Your task to perform on an android device: change alarm snooze length Image 0: 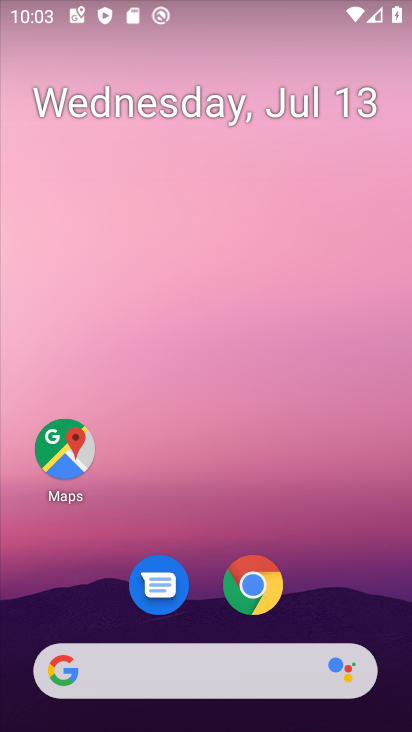
Step 0: drag from (321, 507) to (310, 0)
Your task to perform on an android device: change alarm snooze length Image 1: 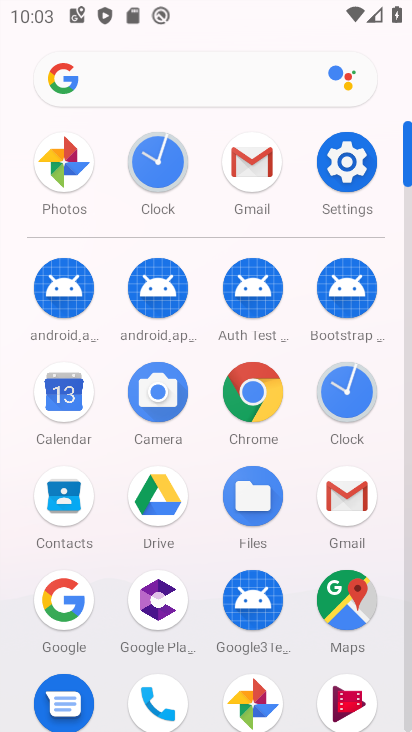
Step 1: click (168, 164)
Your task to perform on an android device: change alarm snooze length Image 2: 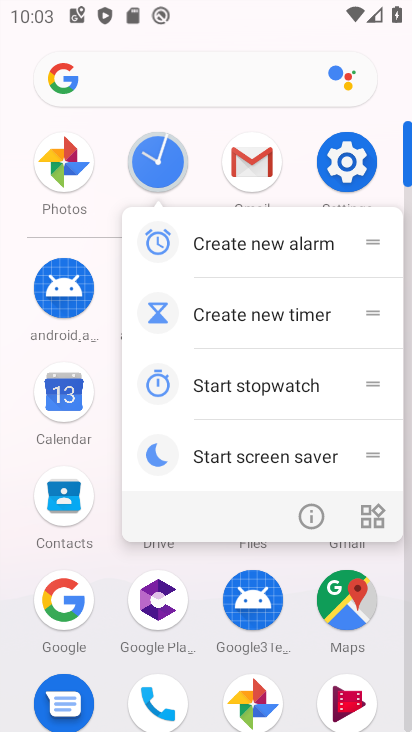
Step 2: click (172, 165)
Your task to perform on an android device: change alarm snooze length Image 3: 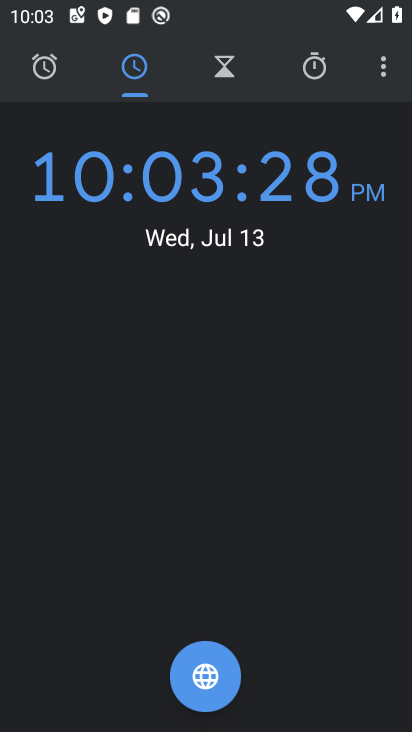
Step 3: click (385, 76)
Your task to perform on an android device: change alarm snooze length Image 4: 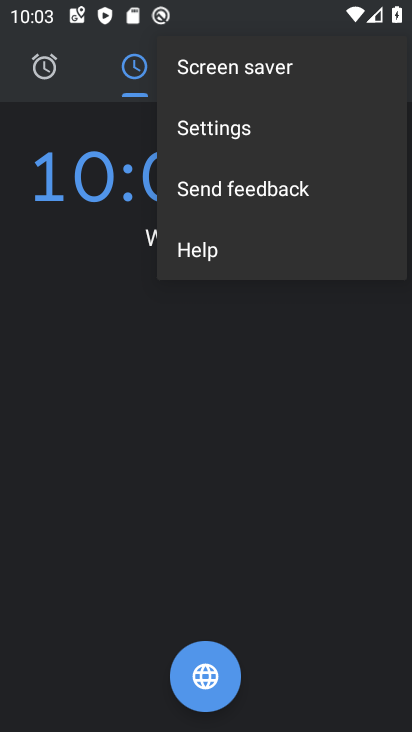
Step 4: click (243, 133)
Your task to perform on an android device: change alarm snooze length Image 5: 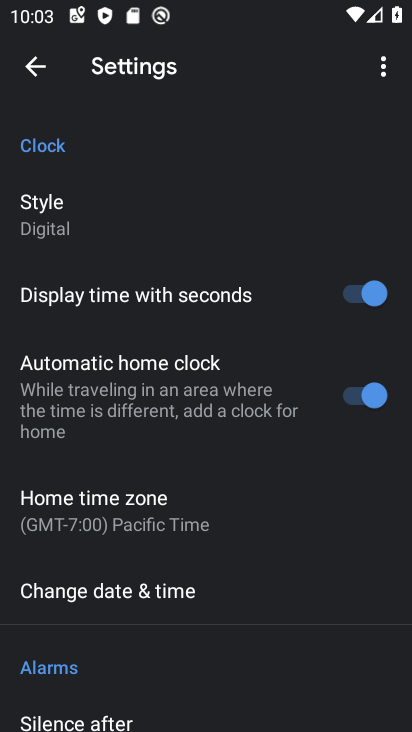
Step 5: drag from (251, 550) to (312, 205)
Your task to perform on an android device: change alarm snooze length Image 6: 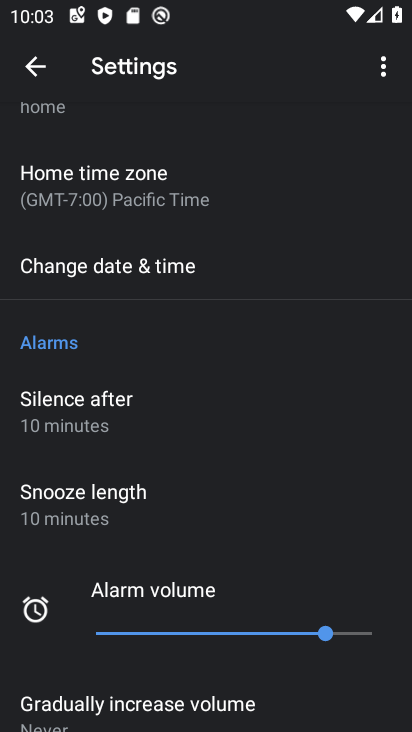
Step 6: click (135, 514)
Your task to perform on an android device: change alarm snooze length Image 7: 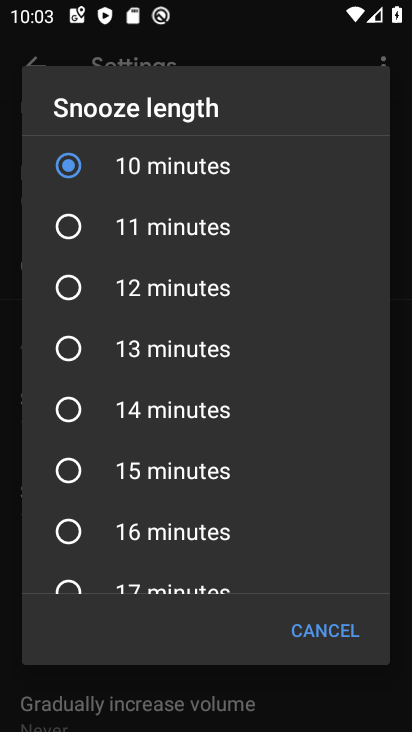
Step 7: click (75, 289)
Your task to perform on an android device: change alarm snooze length Image 8: 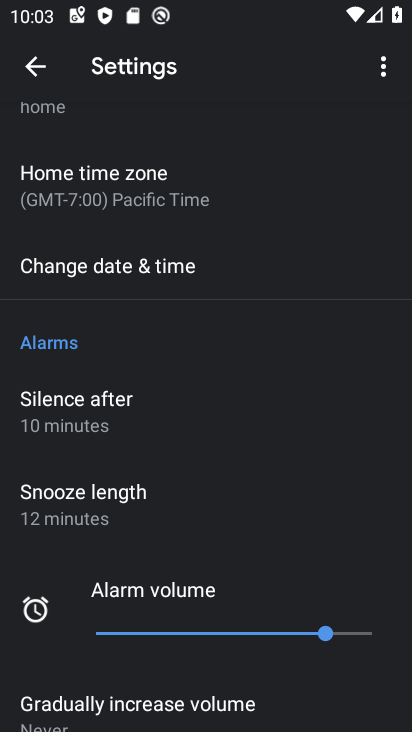
Step 8: task complete